Your task to perform on an android device: turn pop-ups on in chrome Image 0: 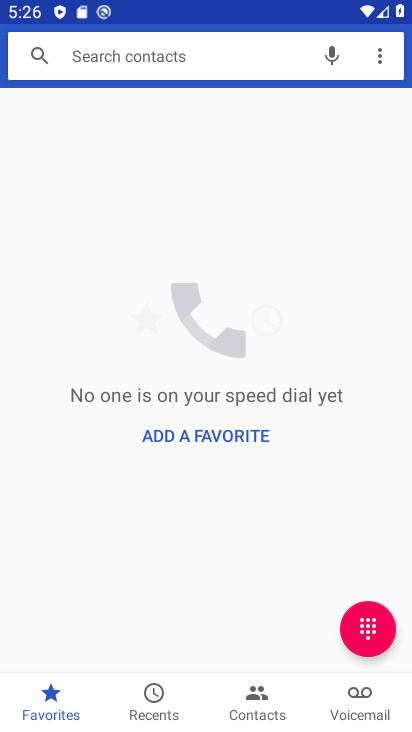
Step 0: press home button
Your task to perform on an android device: turn pop-ups on in chrome Image 1: 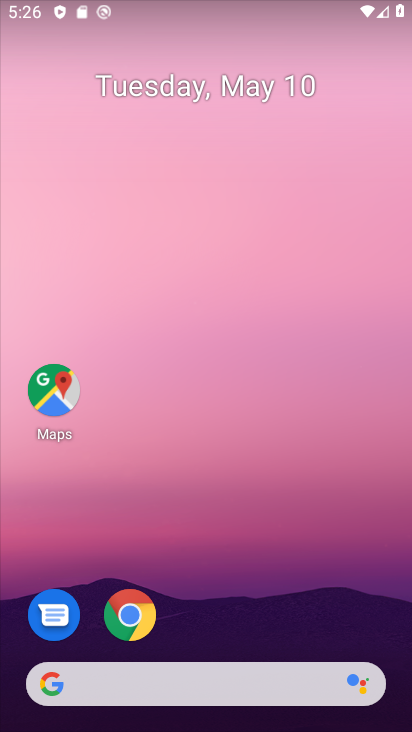
Step 1: click (144, 609)
Your task to perform on an android device: turn pop-ups on in chrome Image 2: 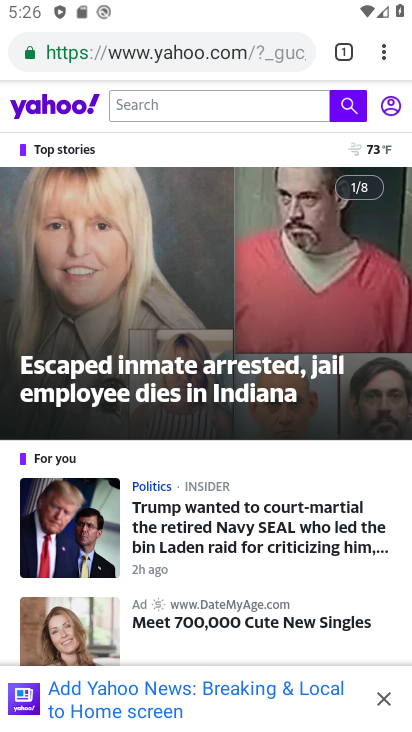
Step 2: click (387, 56)
Your task to perform on an android device: turn pop-ups on in chrome Image 3: 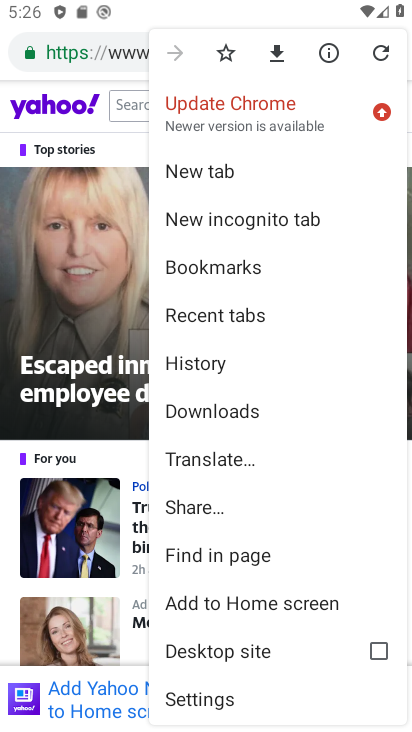
Step 3: click (227, 692)
Your task to perform on an android device: turn pop-ups on in chrome Image 4: 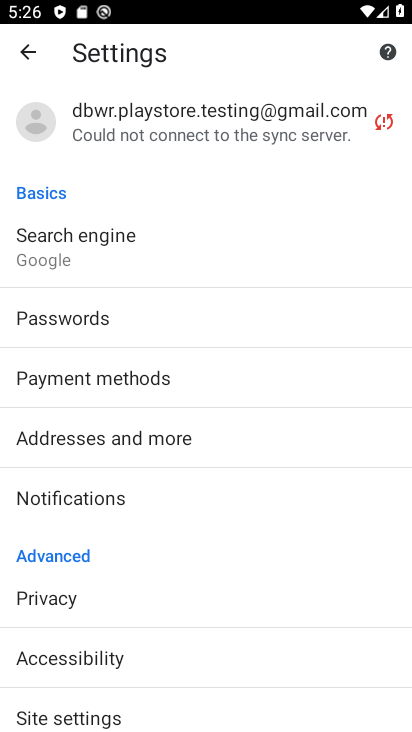
Step 4: drag from (99, 639) to (107, 300)
Your task to perform on an android device: turn pop-ups on in chrome Image 5: 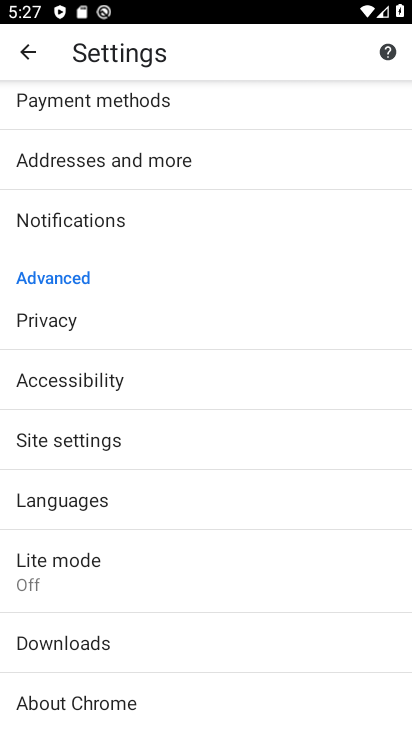
Step 5: click (55, 439)
Your task to perform on an android device: turn pop-ups on in chrome Image 6: 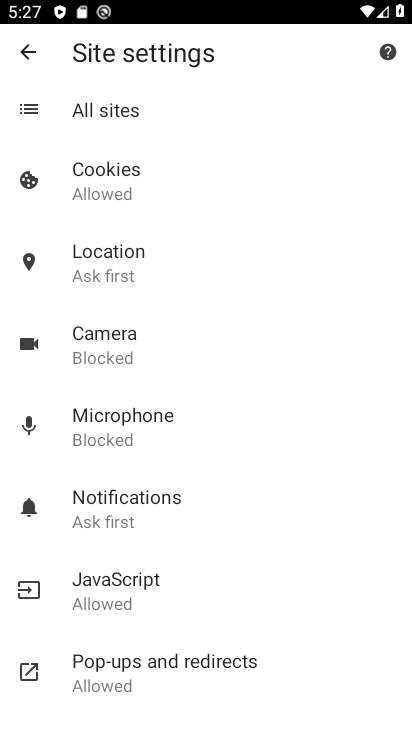
Step 6: click (148, 658)
Your task to perform on an android device: turn pop-ups on in chrome Image 7: 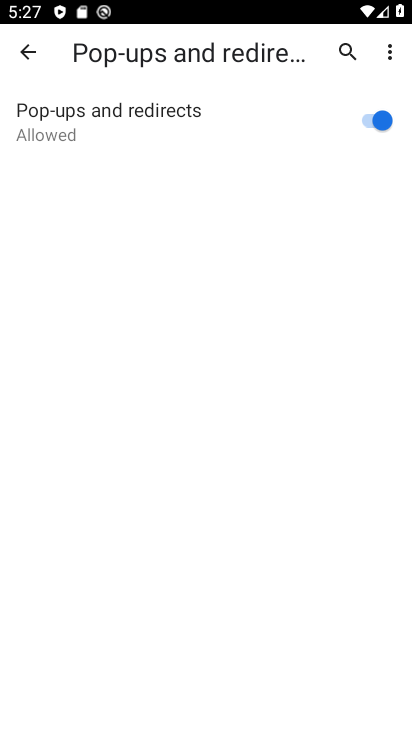
Step 7: task complete